Your task to perform on an android device: delete location history Image 0: 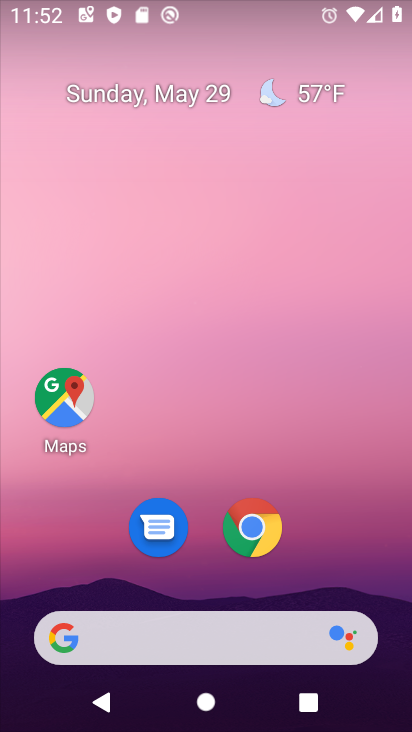
Step 0: click (68, 403)
Your task to perform on an android device: delete location history Image 1: 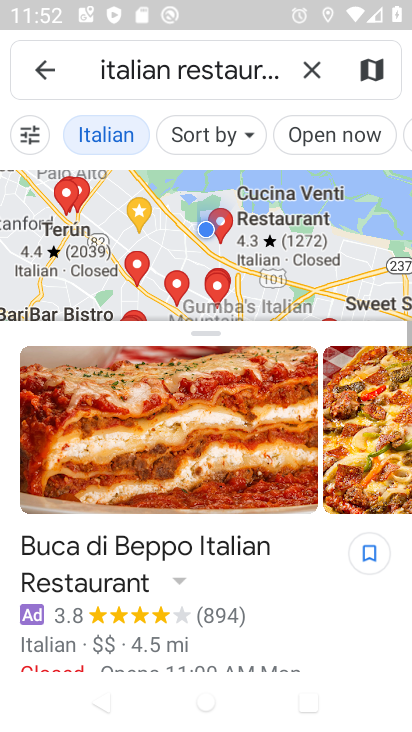
Step 1: click (54, 78)
Your task to perform on an android device: delete location history Image 2: 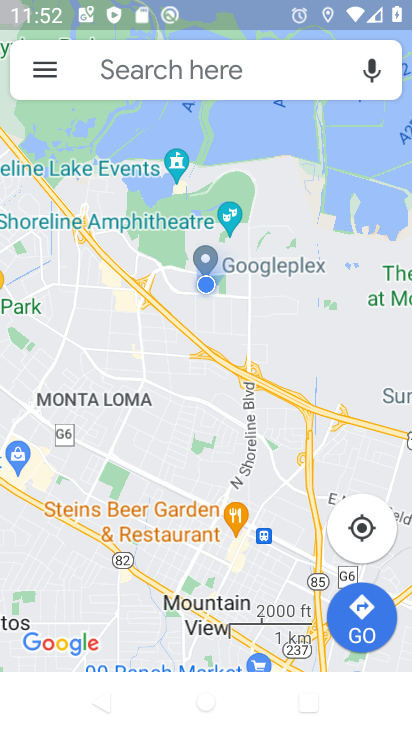
Step 2: click (54, 78)
Your task to perform on an android device: delete location history Image 3: 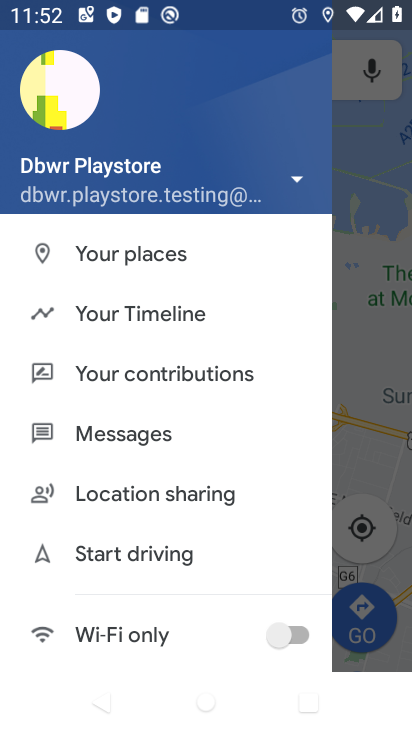
Step 3: click (179, 327)
Your task to perform on an android device: delete location history Image 4: 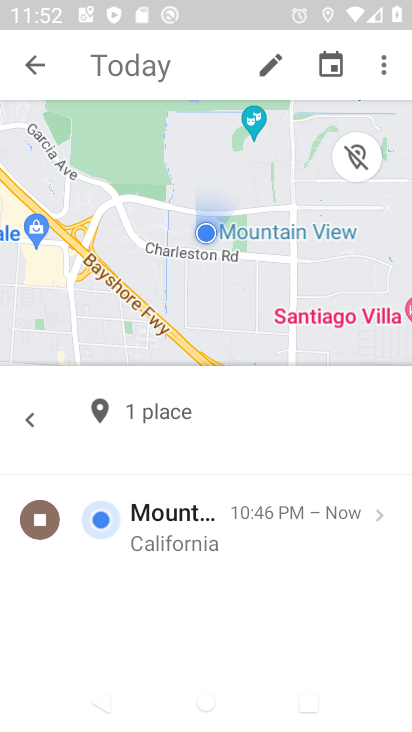
Step 4: click (402, 55)
Your task to perform on an android device: delete location history Image 5: 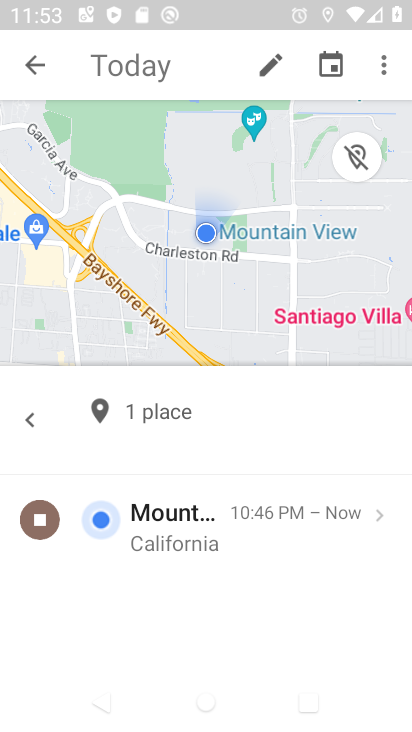
Step 5: click (390, 70)
Your task to perform on an android device: delete location history Image 6: 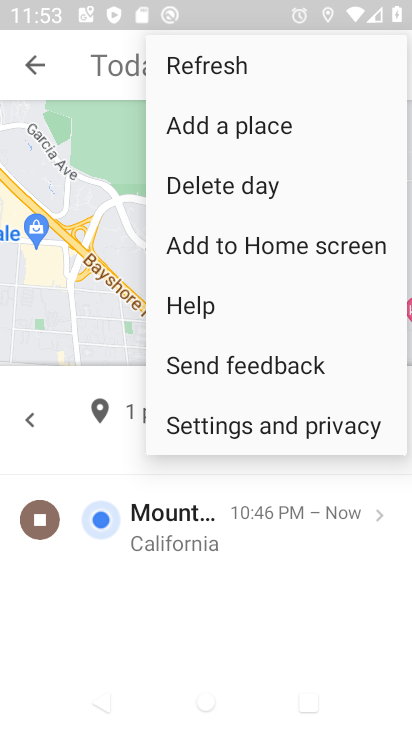
Step 6: click (252, 431)
Your task to perform on an android device: delete location history Image 7: 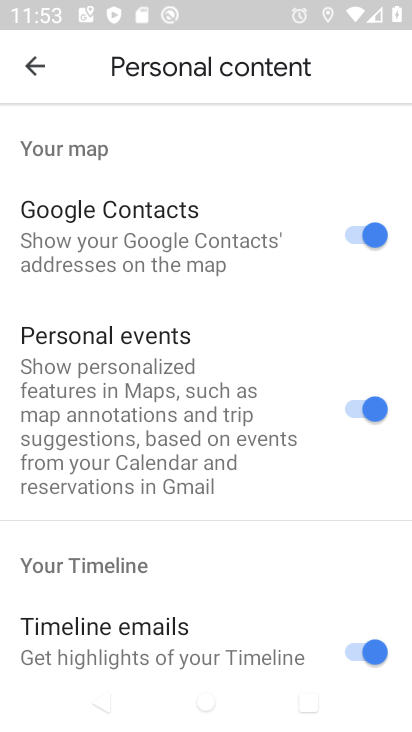
Step 7: drag from (191, 552) to (240, 110)
Your task to perform on an android device: delete location history Image 8: 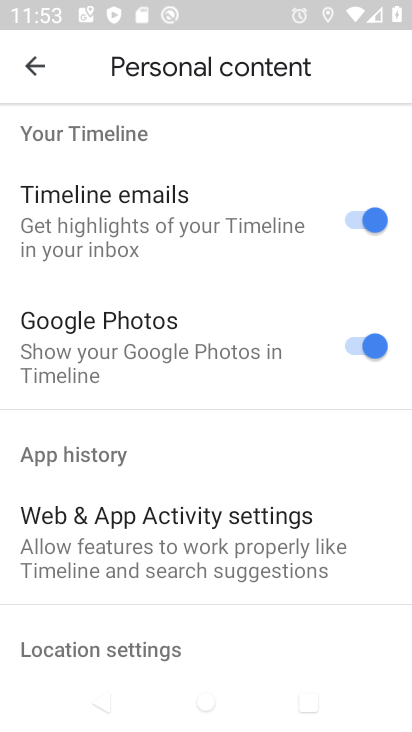
Step 8: drag from (159, 598) to (198, 201)
Your task to perform on an android device: delete location history Image 9: 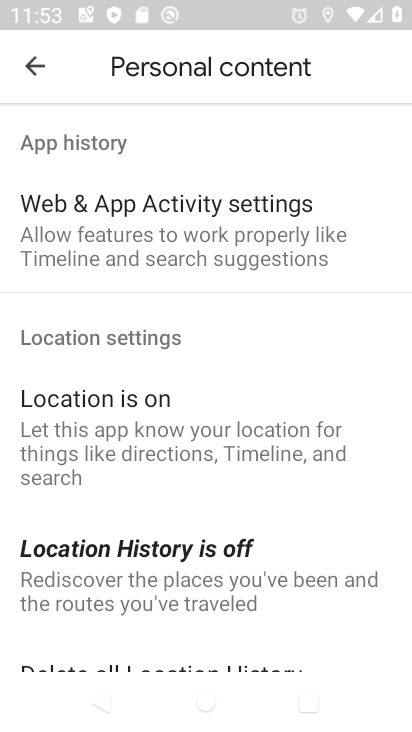
Step 9: drag from (199, 629) to (210, 296)
Your task to perform on an android device: delete location history Image 10: 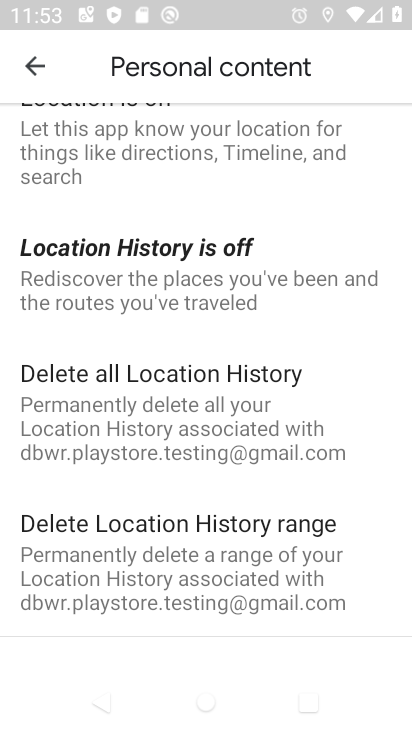
Step 10: drag from (175, 273) to (200, 606)
Your task to perform on an android device: delete location history Image 11: 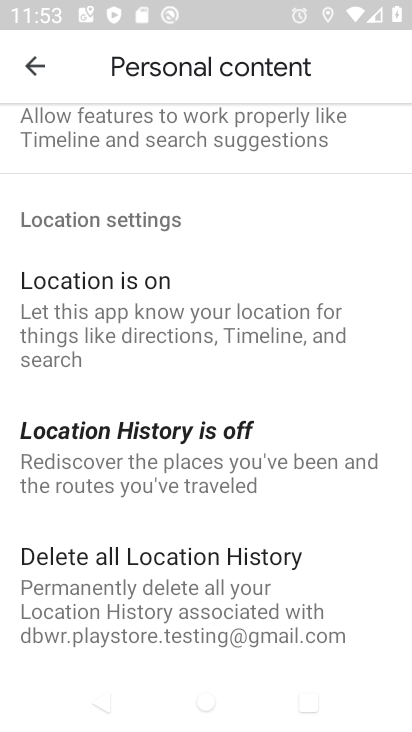
Step 11: click (200, 606)
Your task to perform on an android device: delete location history Image 12: 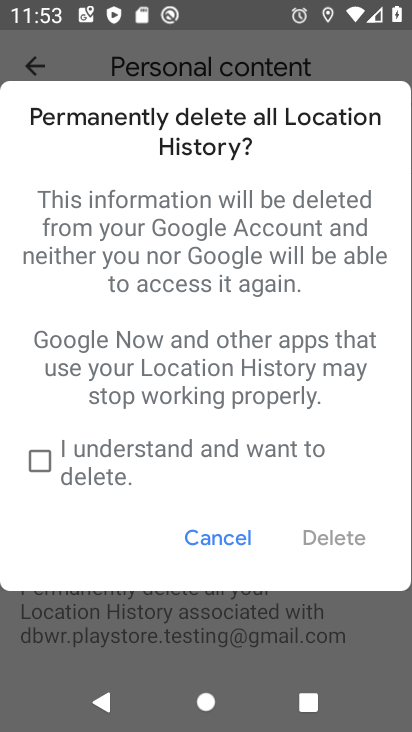
Step 12: click (45, 463)
Your task to perform on an android device: delete location history Image 13: 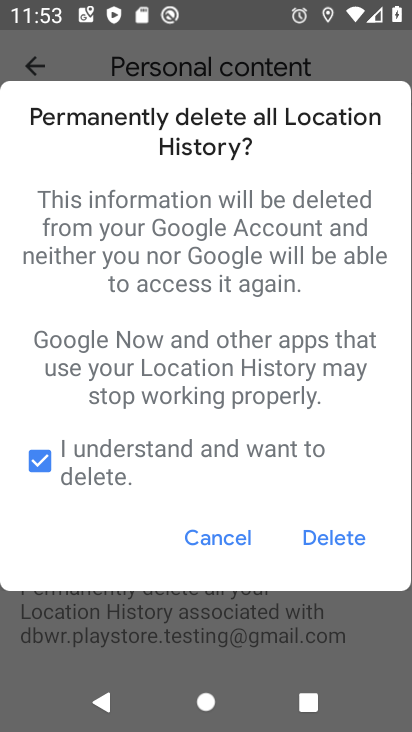
Step 13: click (351, 545)
Your task to perform on an android device: delete location history Image 14: 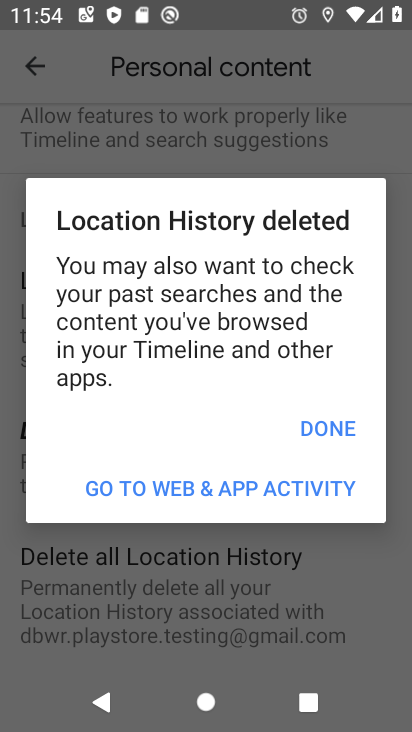
Step 14: click (335, 445)
Your task to perform on an android device: delete location history Image 15: 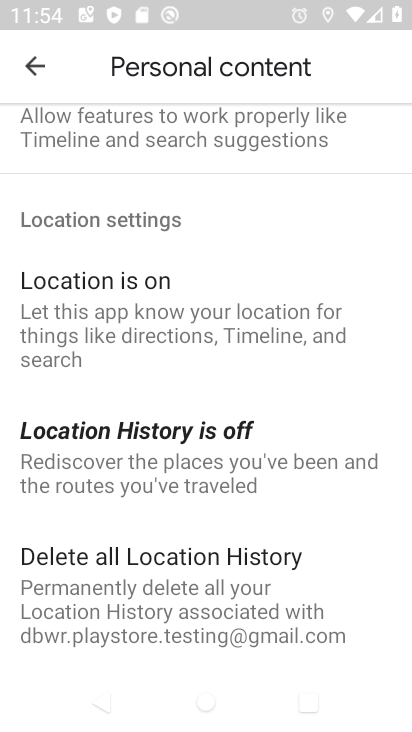
Step 15: task complete